Your task to perform on an android device: turn on translation in the chrome app Image 0: 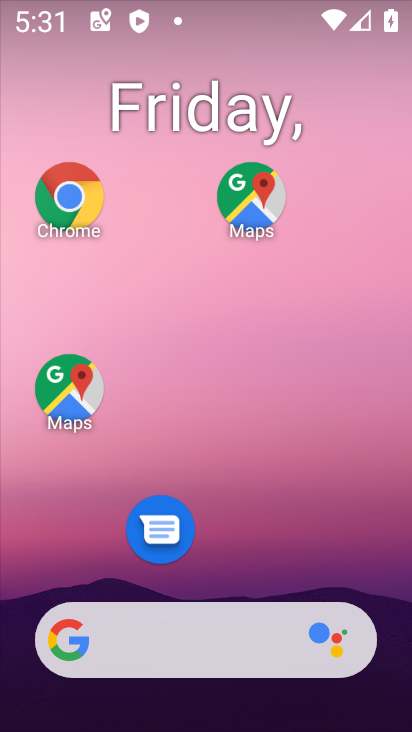
Step 0: drag from (268, 558) to (273, 45)
Your task to perform on an android device: turn on translation in the chrome app Image 1: 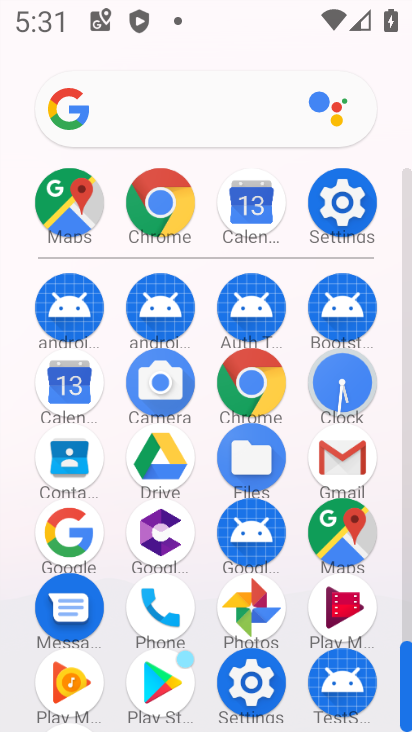
Step 1: click (163, 224)
Your task to perform on an android device: turn on translation in the chrome app Image 2: 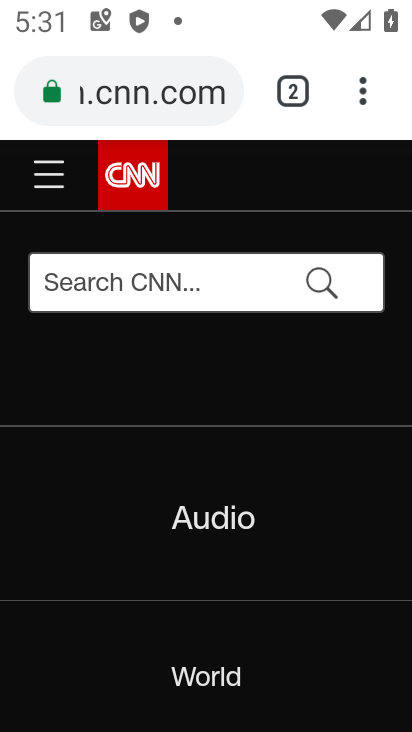
Step 2: click (362, 91)
Your task to perform on an android device: turn on translation in the chrome app Image 3: 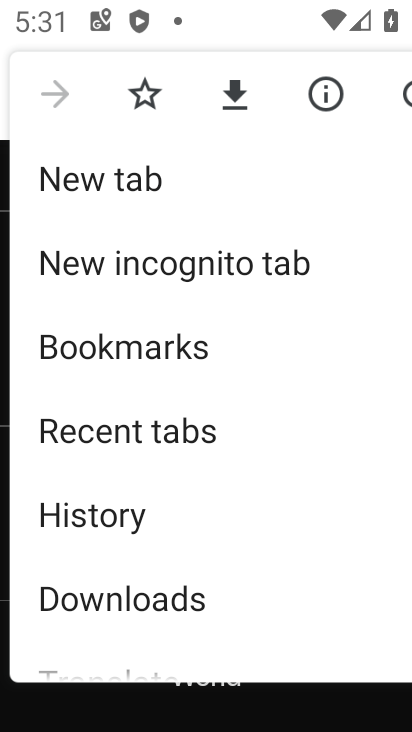
Step 3: click (205, 198)
Your task to perform on an android device: turn on translation in the chrome app Image 4: 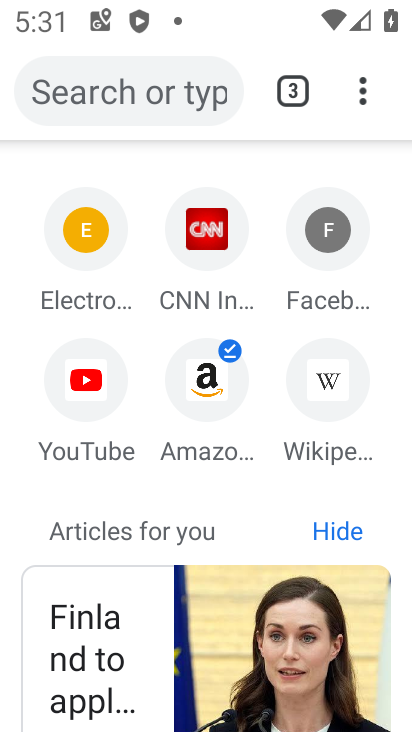
Step 4: drag from (231, 579) to (295, 255)
Your task to perform on an android device: turn on translation in the chrome app Image 5: 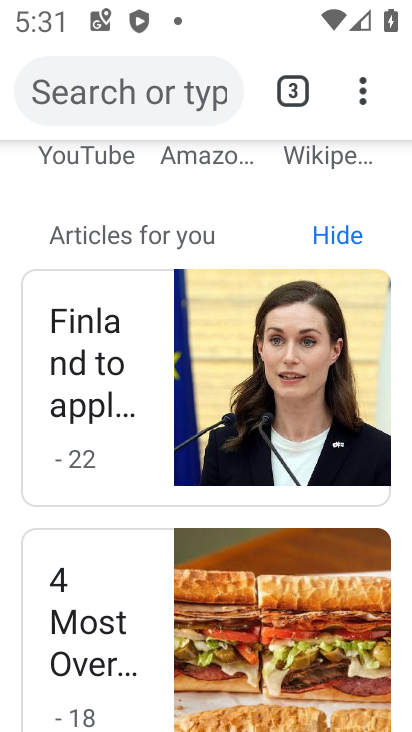
Step 5: click (363, 97)
Your task to perform on an android device: turn on translation in the chrome app Image 6: 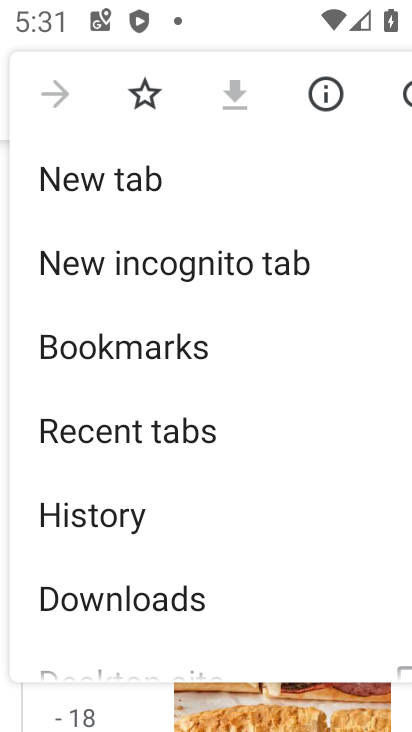
Step 6: click (363, 92)
Your task to perform on an android device: turn on translation in the chrome app Image 7: 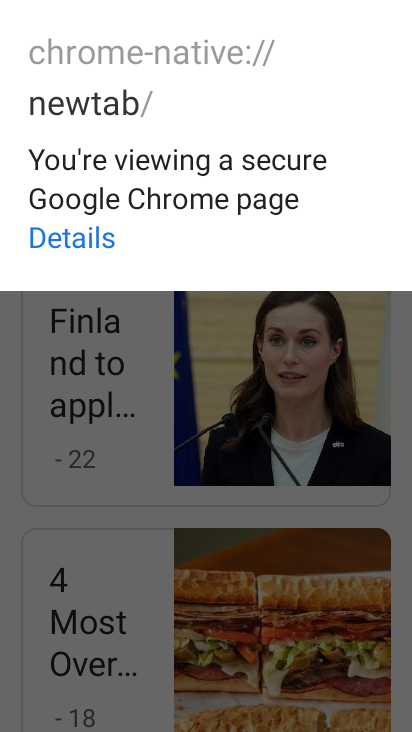
Step 7: click (188, 277)
Your task to perform on an android device: turn on translation in the chrome app Image 8: 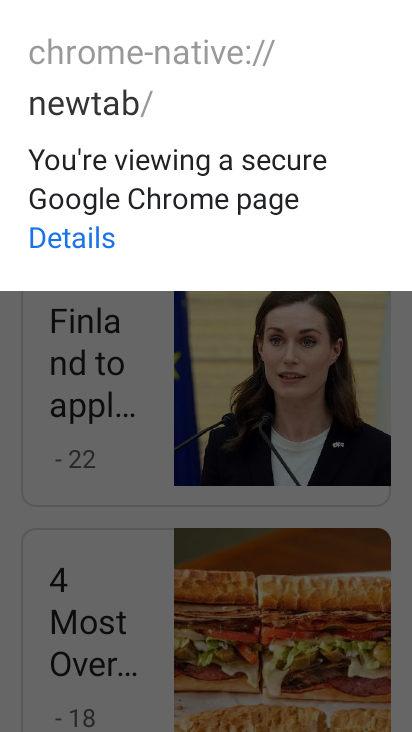
Step 8: click (95, 358)
Your task to perform on an android device: turn on translation in the chrome app Image 9: 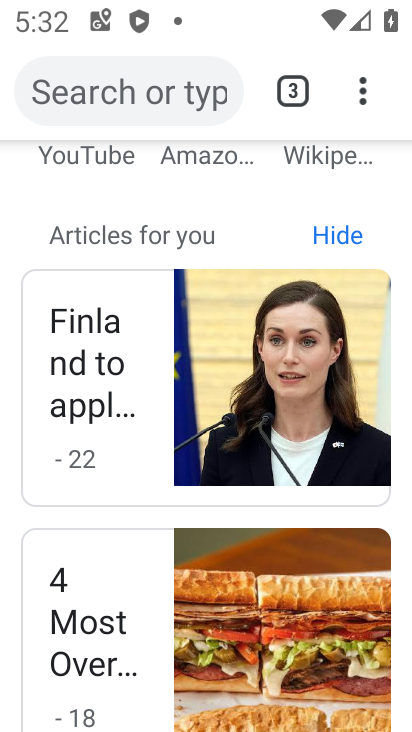
Step 9: click (12, 344)
Your task to perform on an android device: turn on translation in the chrome app Image 10: 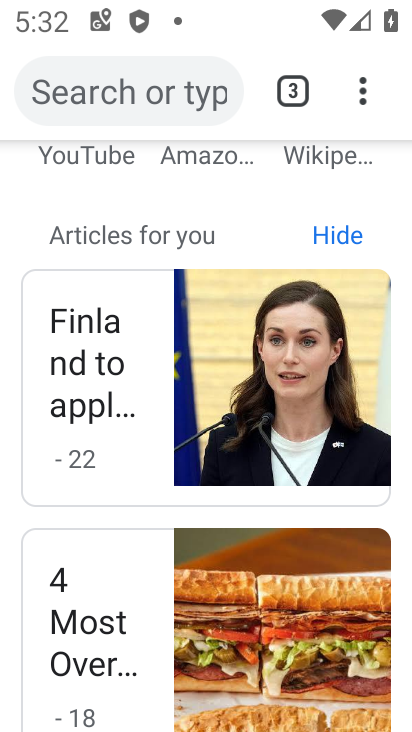
Step 10: click (366, 97)
Your task to perform on an android device: turn on translation in the chrome app Image 11: 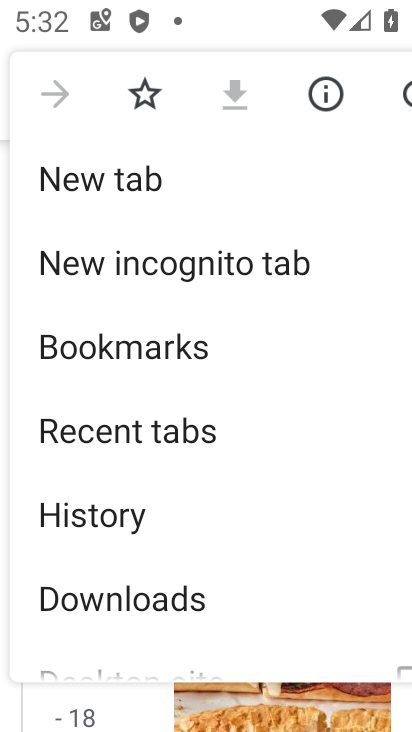
Step 11: drag from (199, 304) to (214, 265)
Your task to perform on an android device: turn on translation in the chrome app Image 12: 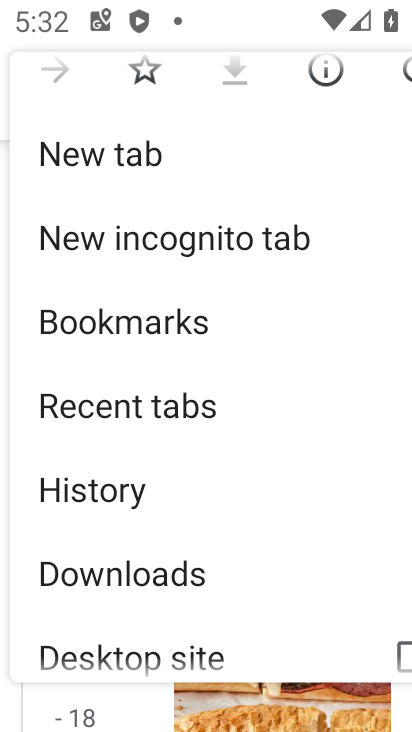
Step 12: click (175, 268)
Your task to perform on an android device: turn on translation in the chrome app Image 13: 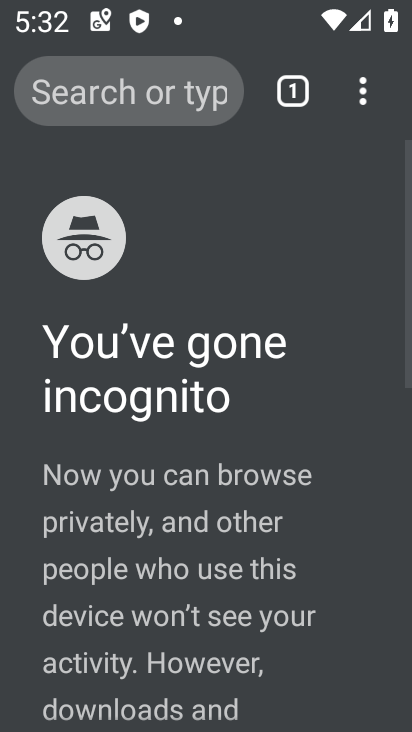
Step 13: drag from (218, 590) to (277, 279)
Your task to perform on an android device: turn on translation in the chrome app Image 14: 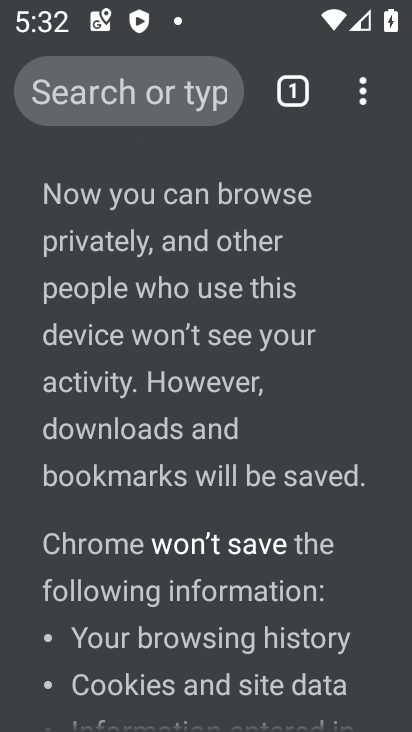
Step 14: press back button
Your task to perform on an android device: turn on translation in the chrome app Image 15: 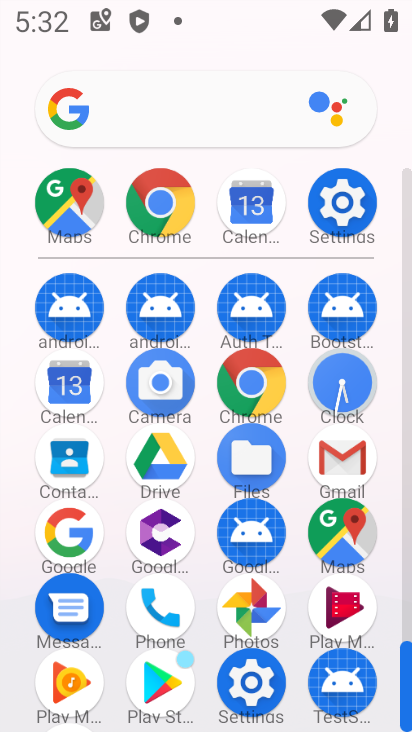
Step 15: click (332, 208)
Your task to perform on an android device: turn on translation in the chrome app Image 16: 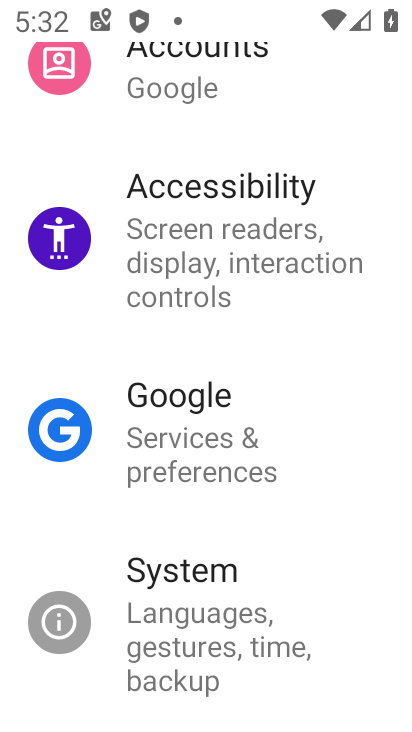
Step 16: press back button
Your task to perform on an android device: turn on translation in the chrome app Image 17: 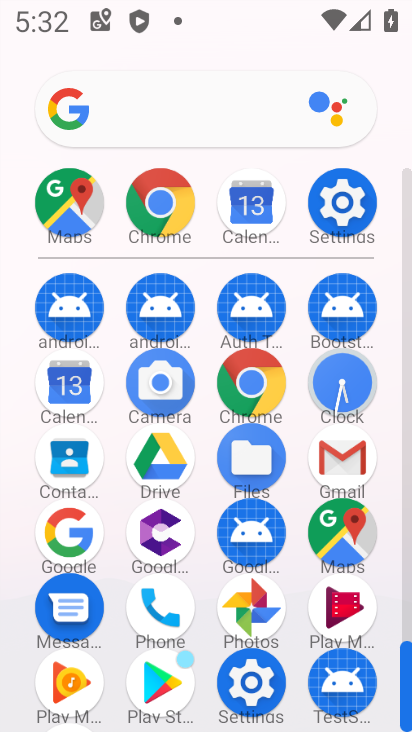
Step 17: drag from (297, 256) to (278, 577)
Your task to perform on an android device: turn on translation in the chrome app Image 18: 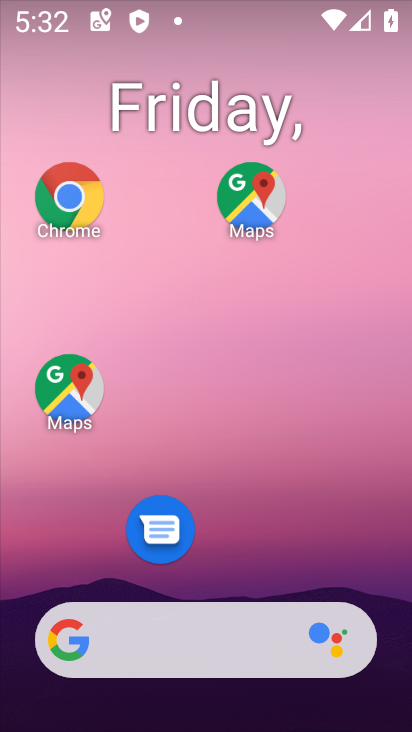
Step 18: click (62, 197)
Your task to perform on an android device: turn on translation in the chrome app Image 19: 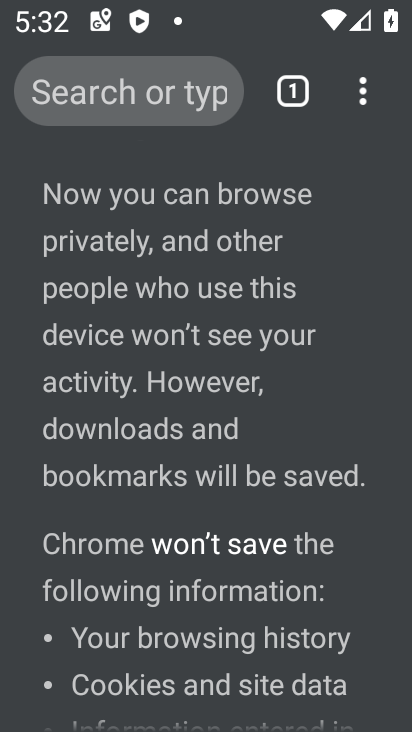
Step 19: click (369, 94)
Your task to perform on an android device: turn on translation in the chrome app Image 20: 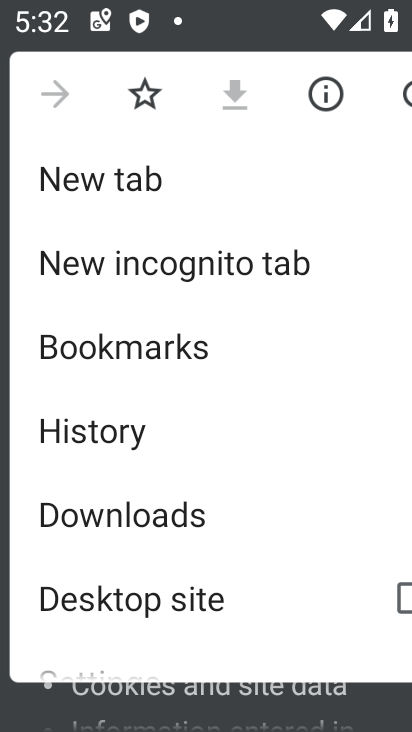
Step 20: drag from (164, 544) to (195, 266)
Your task to perform on an android device: turn on translation in the chrome app Image 21: 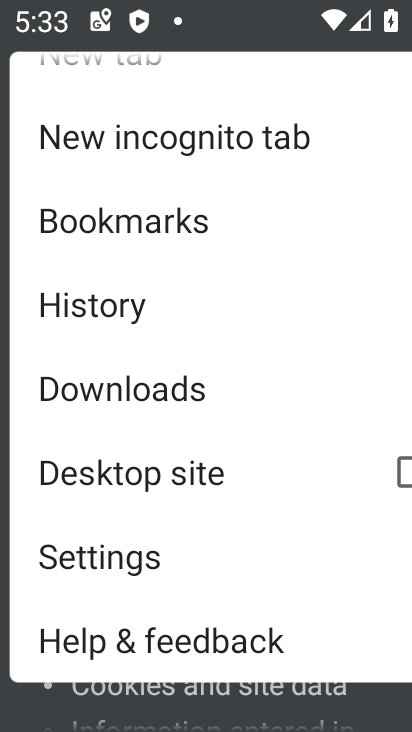
Step 21: click (140, 574)
Your task to perform on an android device: turn on translation in the chrome app Image 22: 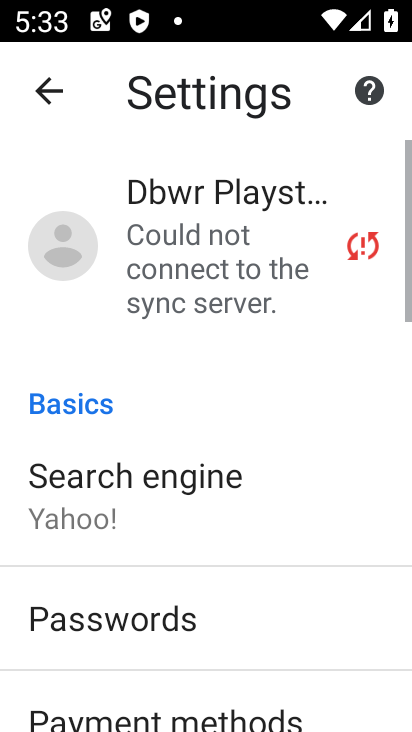
Step 22: drag from (172, 653) to (235, 291)
Your task to perform on an android device: turn on translation in the chrome app Image 23: 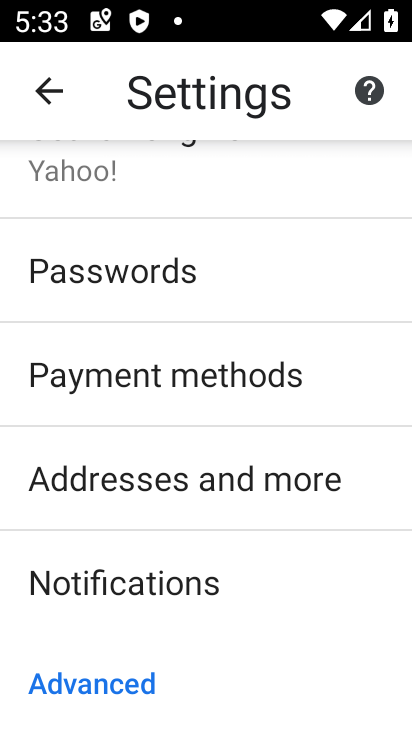
Step 23: drag from (173, 642) to (228, 299)
Your task to perform on an android device: turn on translation in the chrome app Image 24: 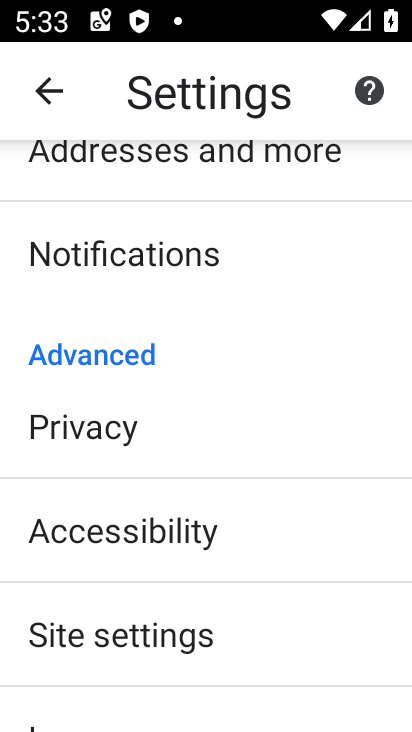
Step 24: drag from (150, 636) to (207, 324)
Your task to perform on an android device: turn on translation in the chrome app Image 25: 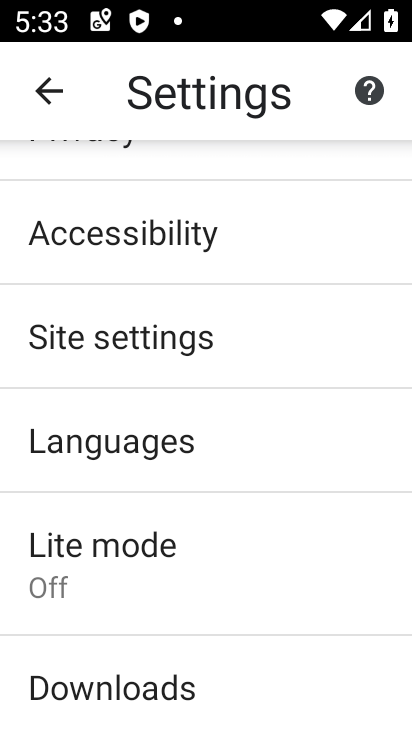
Step 25: click (128, 456)
Your task to perform on an android device: turn on translation in the chrome app Image 26: 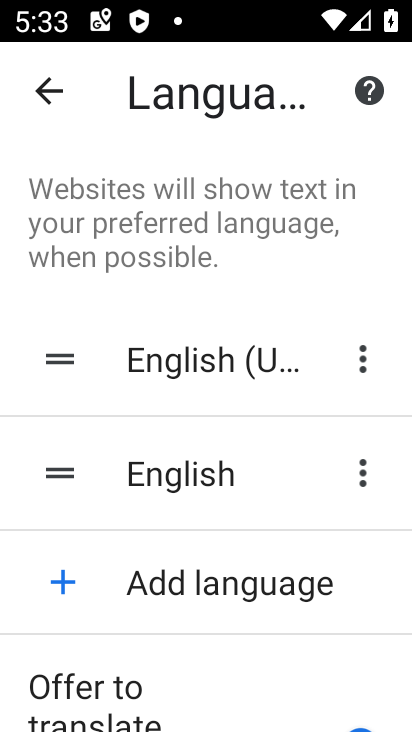
Step 26: task complete